Your task to perform on an android device: turn notification dots on Image 0: 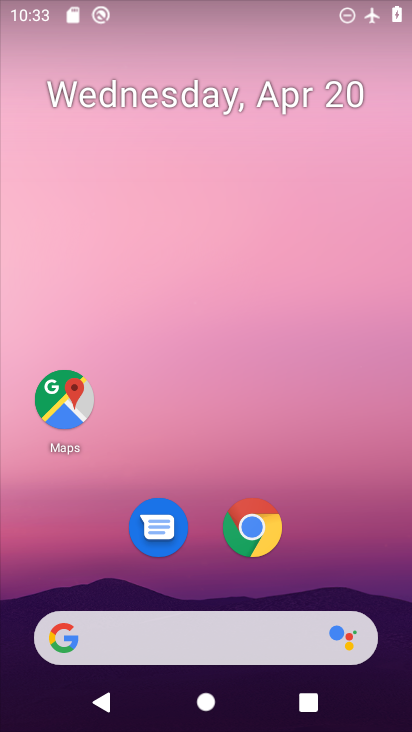
Step 0: drag from (187, 548) to (241, 0)
Your task to perform on an android device: turn notification dots on Image 1: 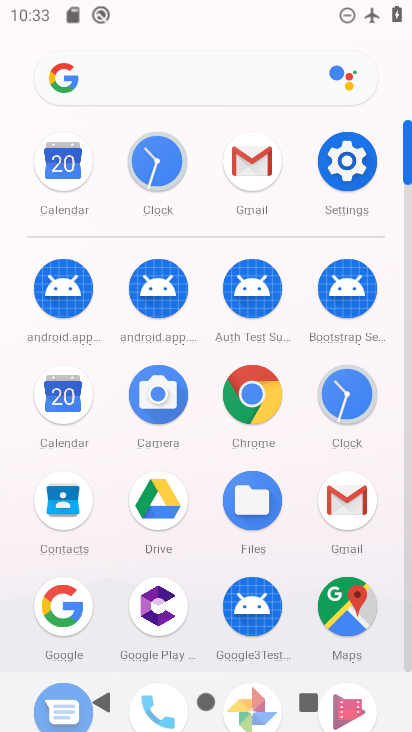
Step 1: click (351, 167)
Your task to perform on an android device: turn notification dots on Image 2: 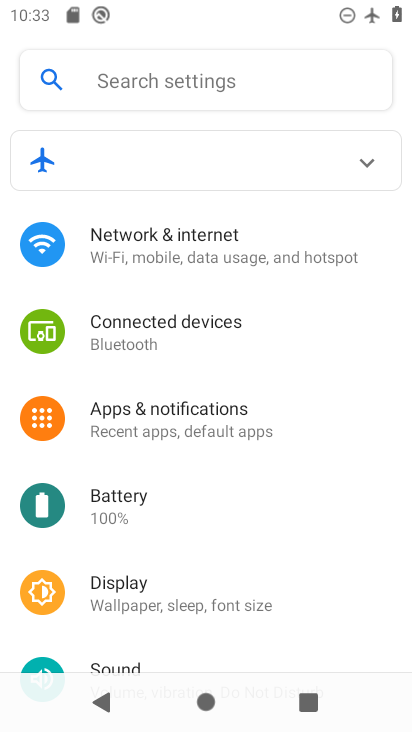
Step 2: click (169, 434)
Your task to perform on an android device: turn notification dots on Image 3: 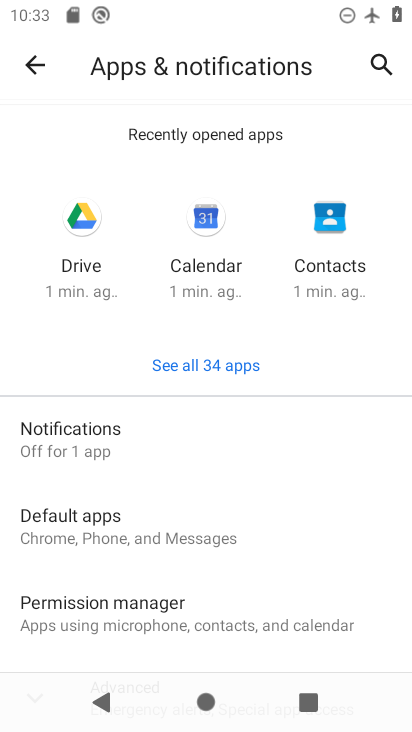
Step 3: click (95, 450)
Your task to perform on an android device: turn notification dots on Image 4: 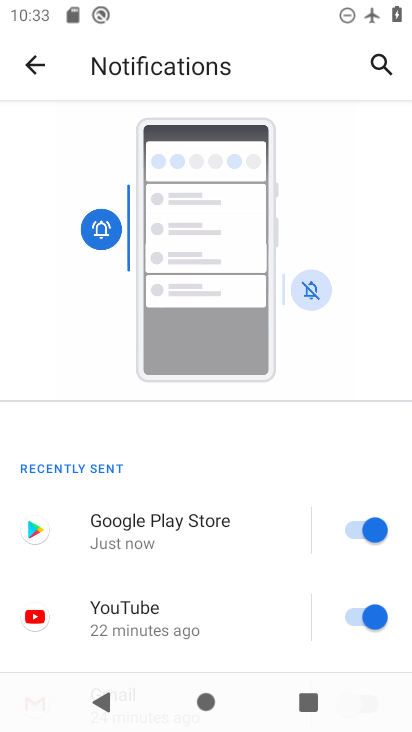
Step 4: drag from (191, 544) to (251, 138)
Your task to perform on an android device: turn notification dots on Image 5: 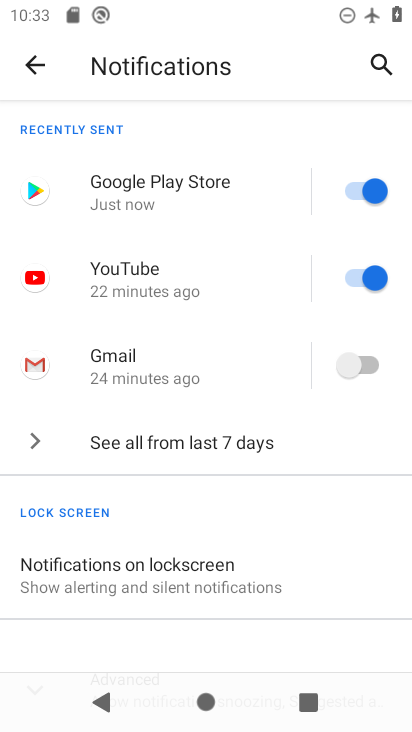
Step 5: drag from (146, 566) to (268, 10)
Your task to perform on an android device: turn notification dots on Image 6: 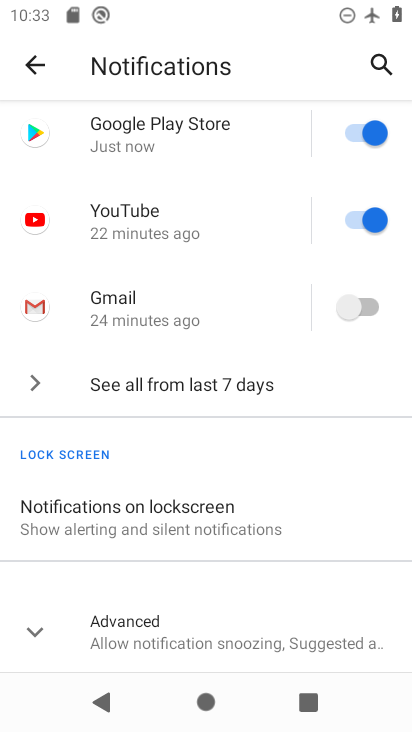
Step 6: click (123, 626)
Your task to perform on an android device: turn notification dots on Image 7: 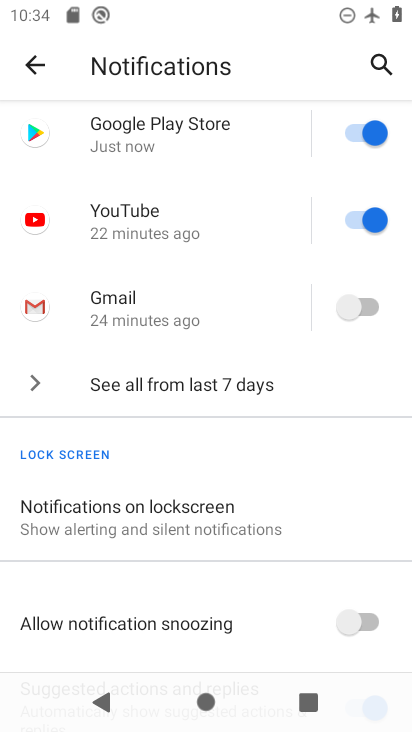
Step 7: task complete